Your task to perform on an android device: turn off smart reply in the gmail app Image 0: 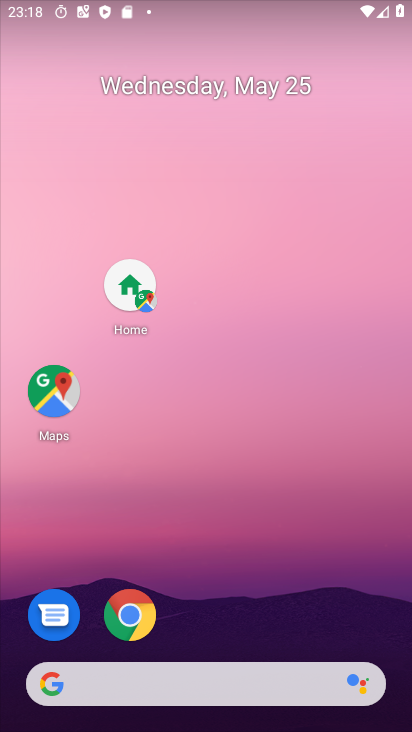
Step 0: press home button
Your task to perform on an android device: turn off smart reply in the gmail app Image 1: 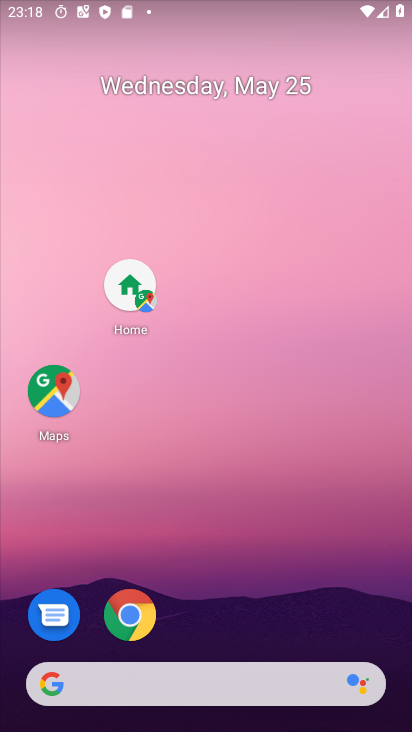
Step 1: drag from (258, 630) to (286, 208)
Your task to perform on an android device: turn off smart reply in the gmail app Image 2: 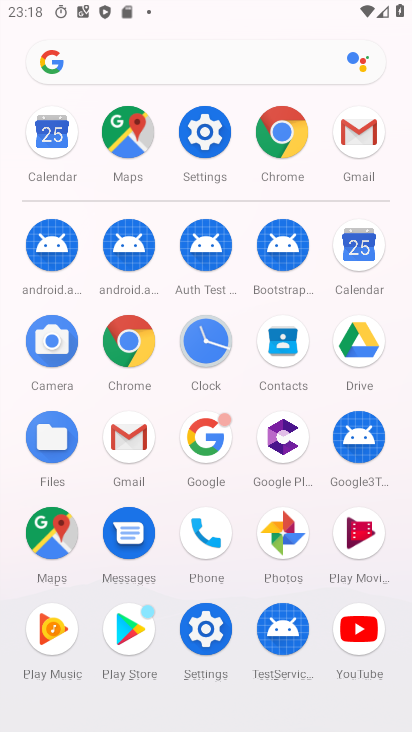
Step 2: click (347, 137)
Your task to perform on an android device: turn off smart reply in the gmail app Image 3: 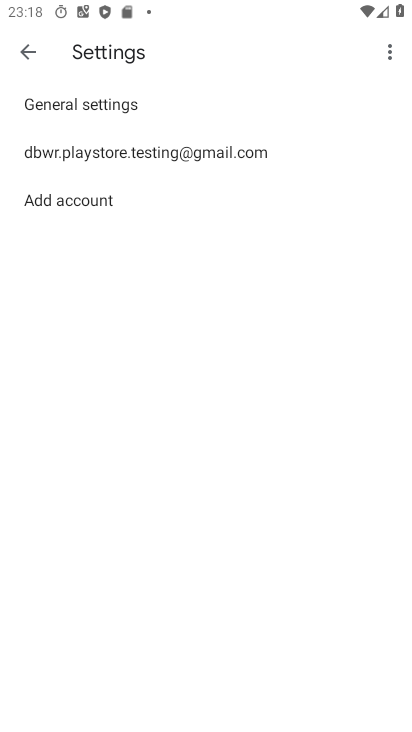
Step 3: click (107, 157)
Your task to perform on an android device: turn off smart reply in the gmail app Image 4: 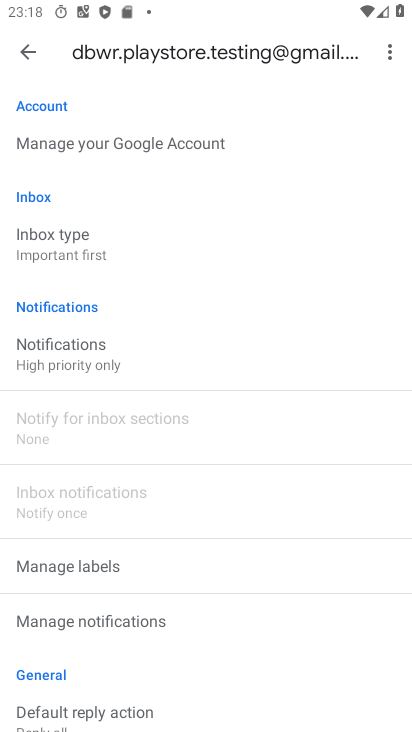
Step 4: task complete